Your task to perform on an android device: Go to Maps Image 0: 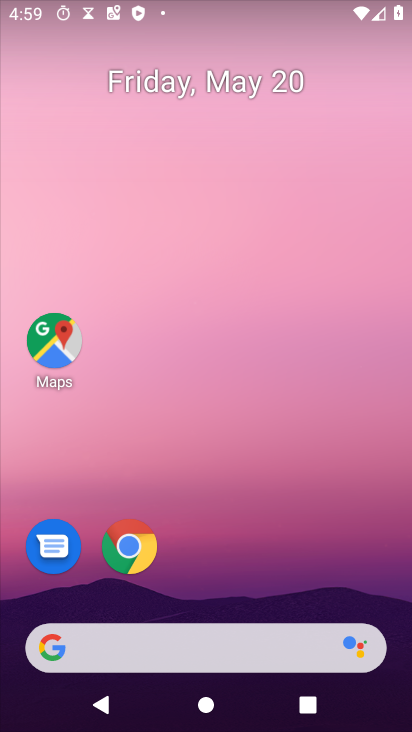
Step 0: click (51, 346)
Your task to perform on an android device: Go to Maps Image 1: 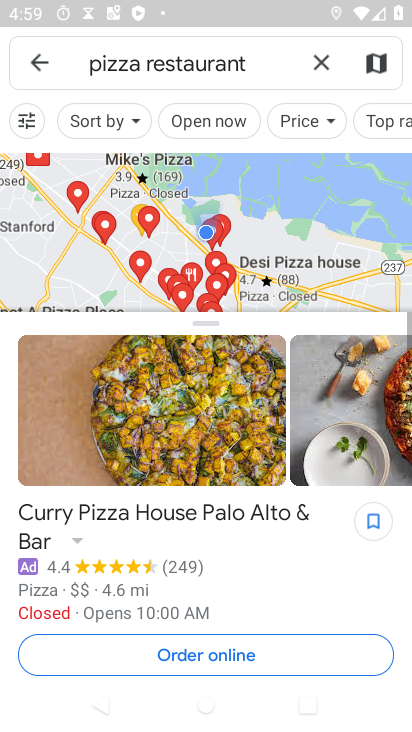
Step 1: click (321, 62)
Your task to perform on an android device: Go to Maps Image 2: 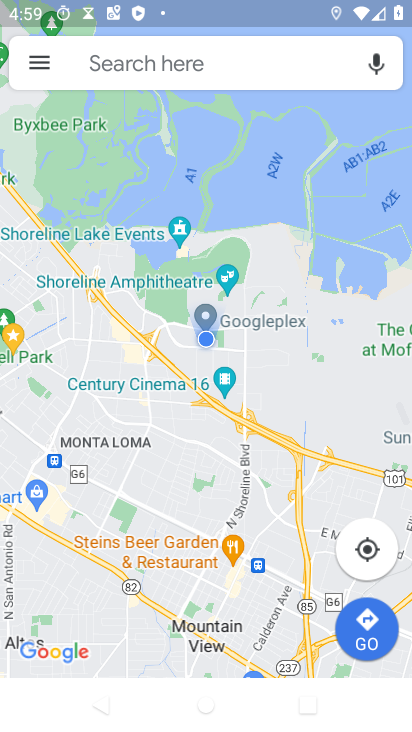
Step 2: task complete